Your task to perform on an android device: Is it going to rain this weekend? Image 0: 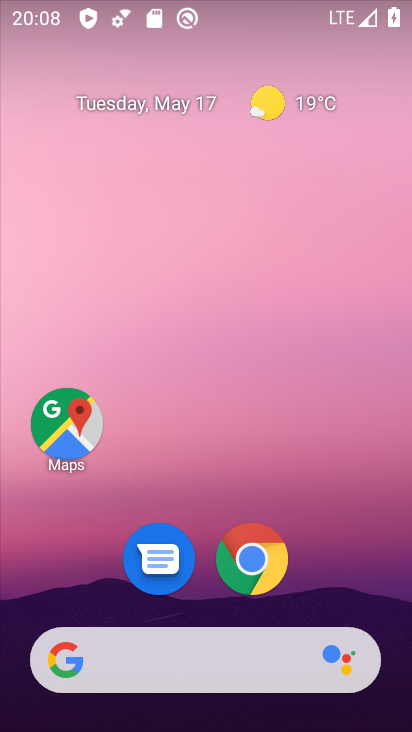
Step 0: drag from (219, 600) to (78, 12)
Your task to perform on an android device: Is it going to rain this weekend? Image 1: 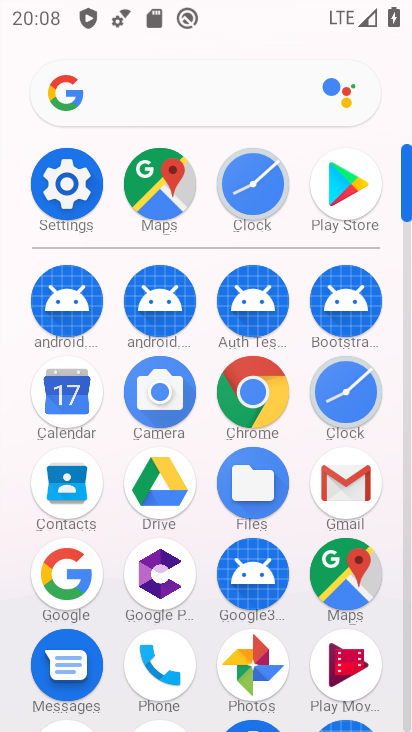
Step 1: click (161, 95)
Your task to perform on an android device: Is it going to rain this weekend? Image 2: 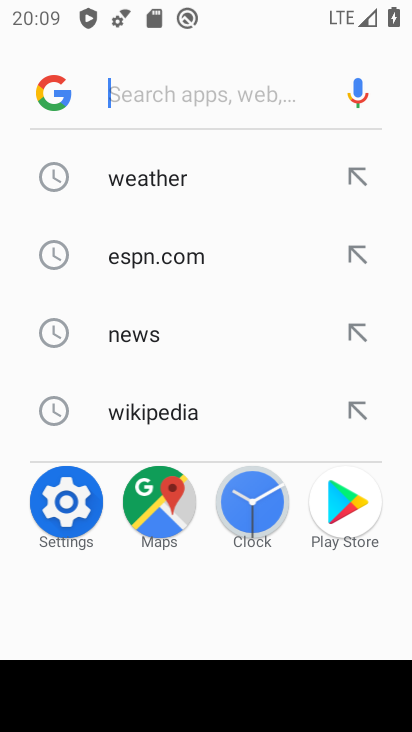
Step 2: type "rain this weekend"
Your task to perform on an android device: Is it going to rain this weekend? Image 3: 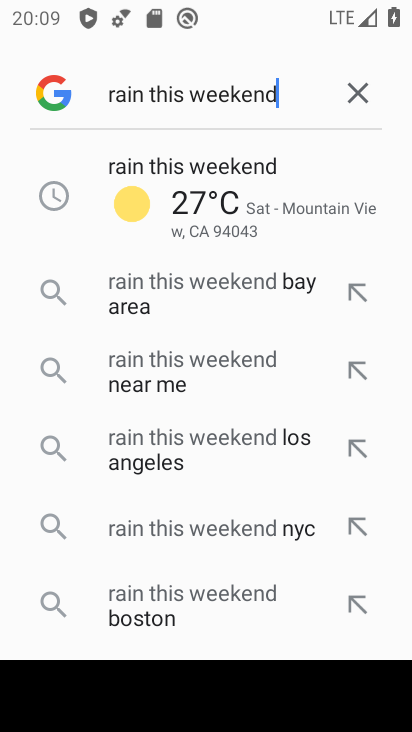
Step 3: click (84, 147)
Your task to perform on an android device: Is it going to rain this weekend? Image 4: 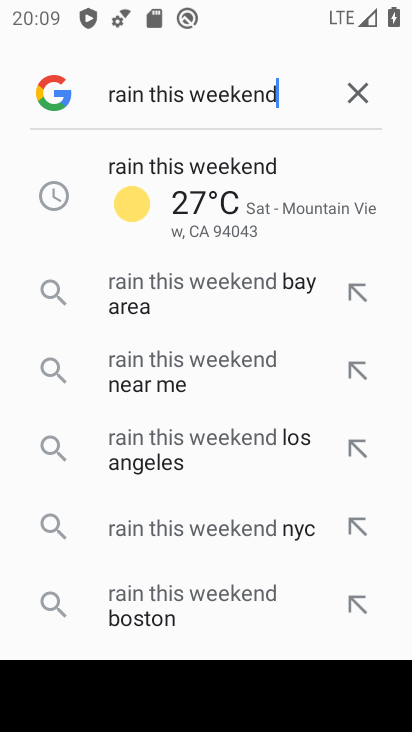
Step 4: click (114, 163)
Your task to perform on an android device: Is it going to rain this weekend? Image 5: 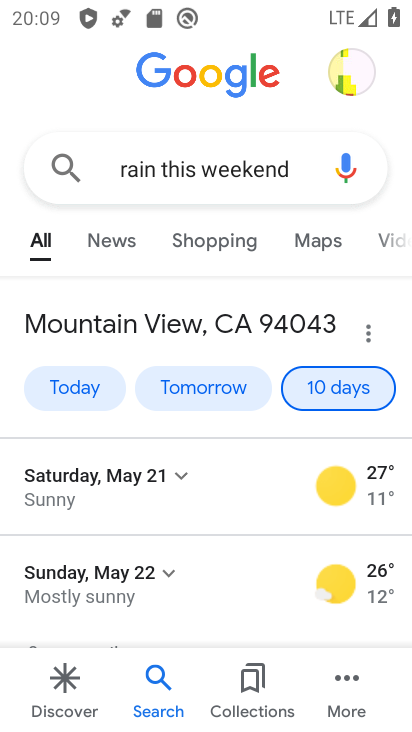
Step 5: task complete